Your task to perform on an android device: turn on priority inbox in the gmail app Image 0: 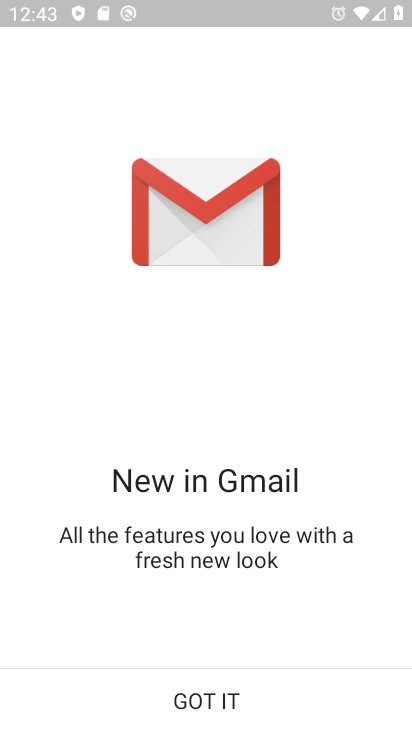
Step 0: press home button
Your task to perform on an android device: turn on priority inbox in the gmail app Image 1: 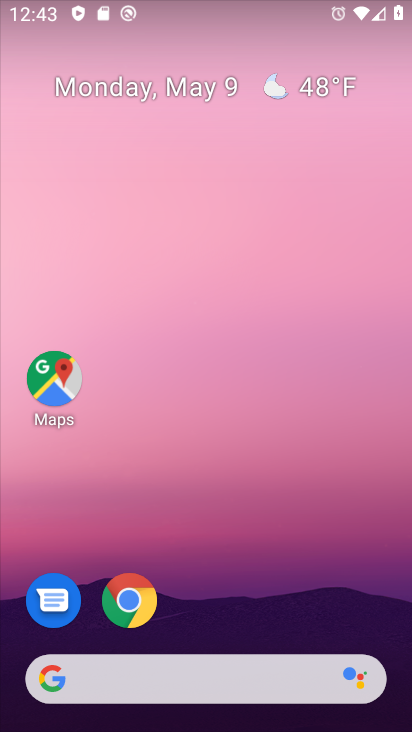
Step 1: drag from (215, 556) to (284, 221)
Your task to perform on an android device: turn on priority inbox in the gmail app Image 2: 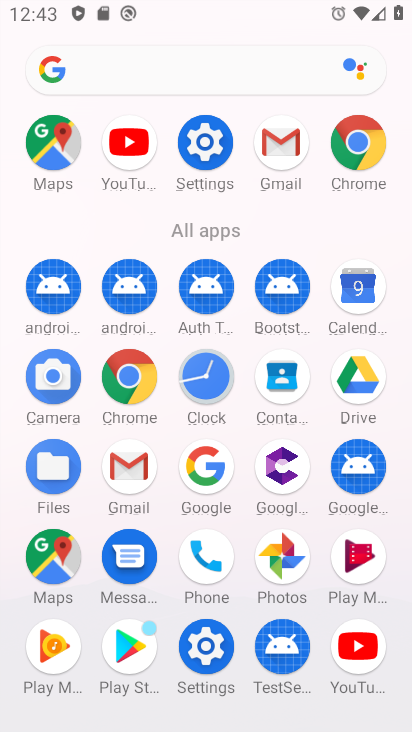
Step 2: click (129, 463)
Your task to perform on an android device: turn on priority inbox in the gmail app Image 3: 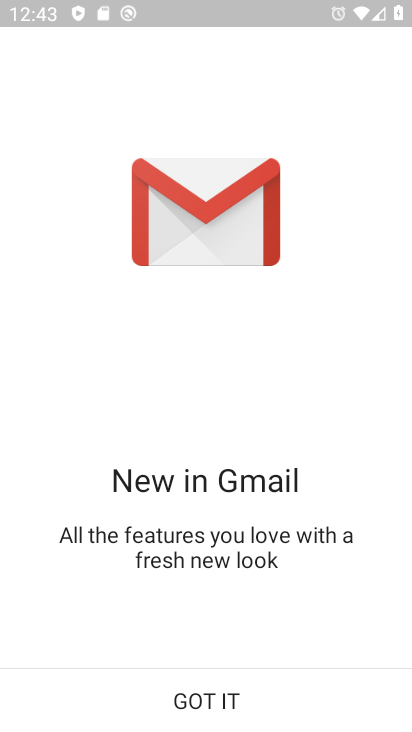
Step 3: click (197, 704)
Your task to perform on an android device: turn on priority inbox in the gmail app Image 4: 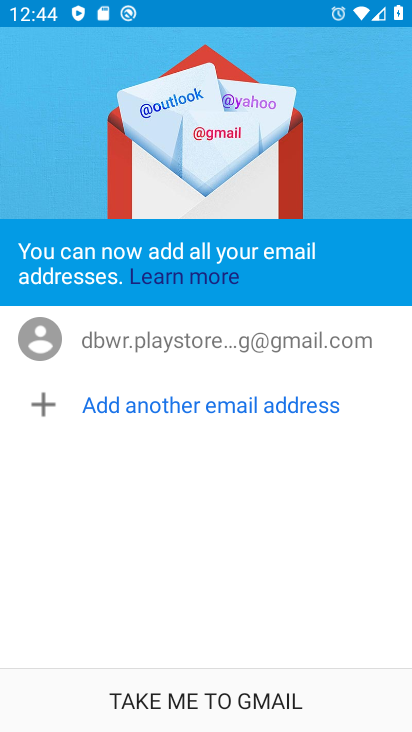
Step 4: click (165, 351)
Your task to perform on an android device: turn on priority inbox in the gmail app Image 5: 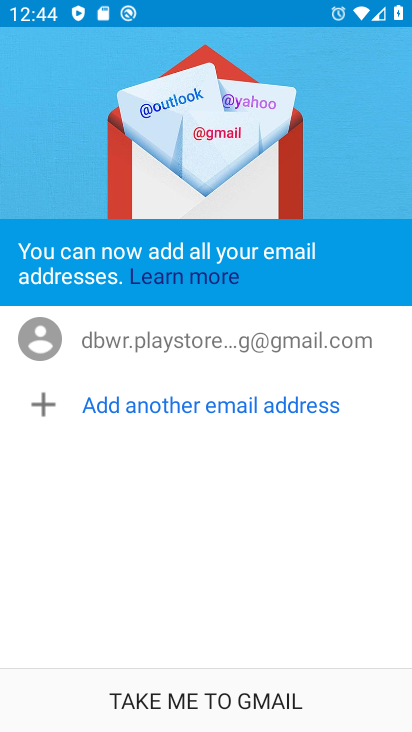
Step 5: task complete